Your task to perform on an android device: Is it going to rain tomorrow? Image 0: 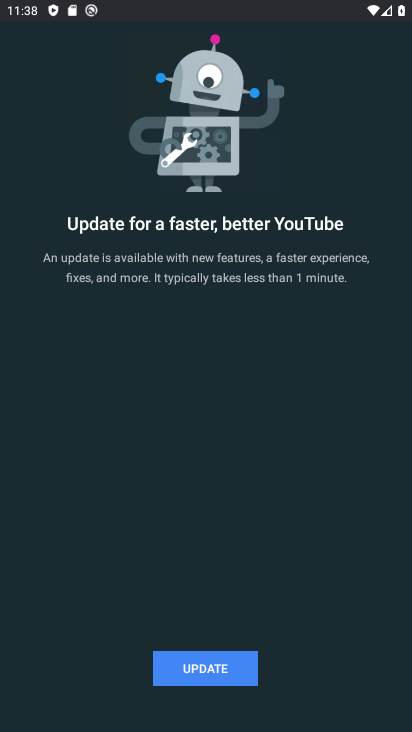
Step 0: press back button
Your task to perform on an android device: Is it going to rain tomorrow? Image 1: 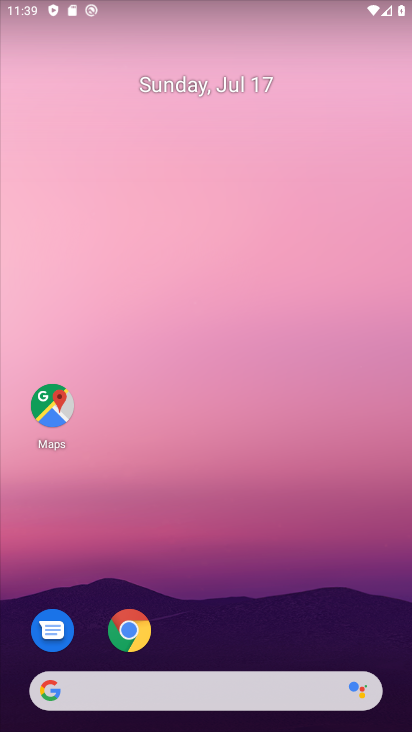
Step 1: drag from (229, 666) to (316, 161)
Your task to perform on an android device: Is it going to rain tomorrow? Image 2: 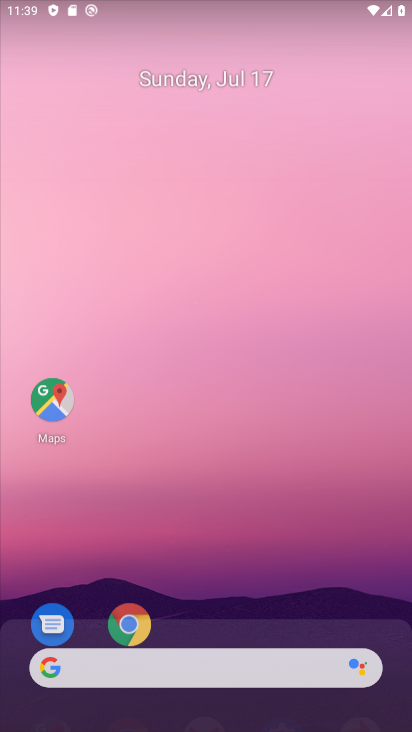
Step 2: drag from (272, 631) to (257, 328)
Your task to perform on an android device: Is it going to rain tomorrow? Image 3: 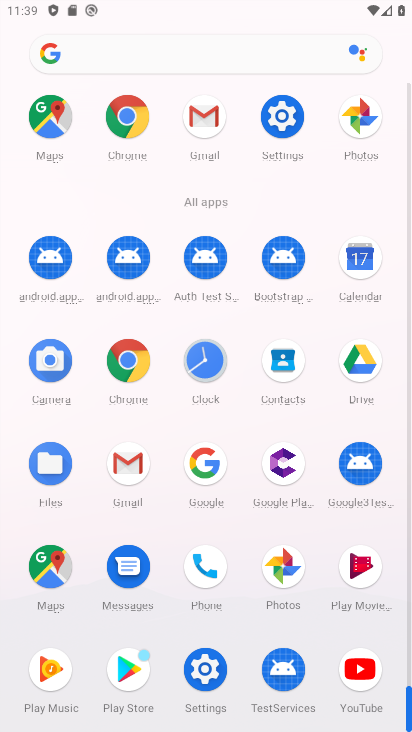
Step 3: click (122, 105)
Your task to perform on an android device: Is it going to rain tomorrow? Image 4: 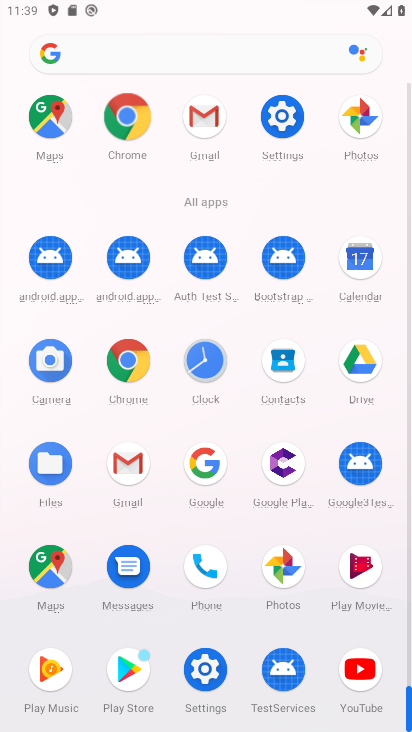
Step 4: click (122, 105)
Your task to perform on an android device: Is it going to rain tomorrow? Image 5: 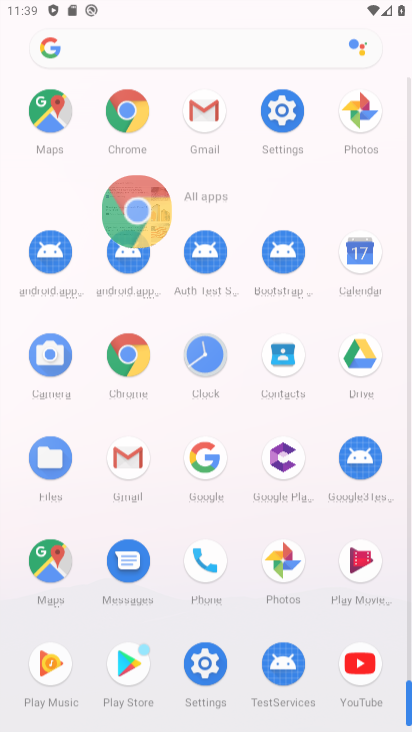
Step 5: click (122, 105)
Your task to perform on an android device: Is it going to rain tomorrow? Image 6: 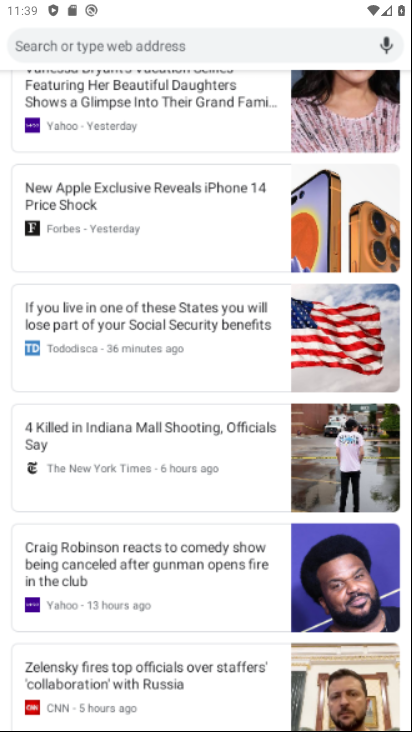
Step 6: click (123, 105)
Your task to perform on an android device: Is it going to rain tomorrow? Image 7: 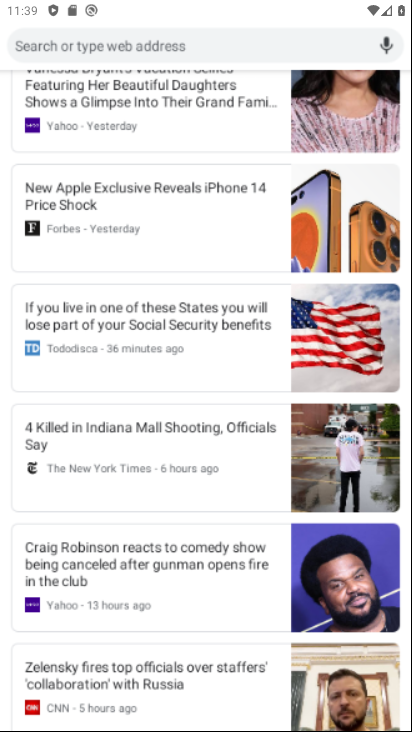
Step 7: click (124, 105)
Your task to perform on an android device: Is it going to rain tomorrow? Image 8: 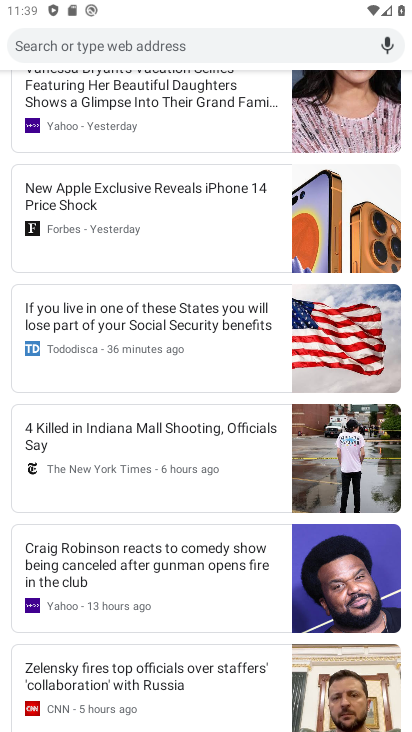
Step 8: click (125, 105)
Your task to perform on an android device: Is it going to rain tomorrow? Image 9: 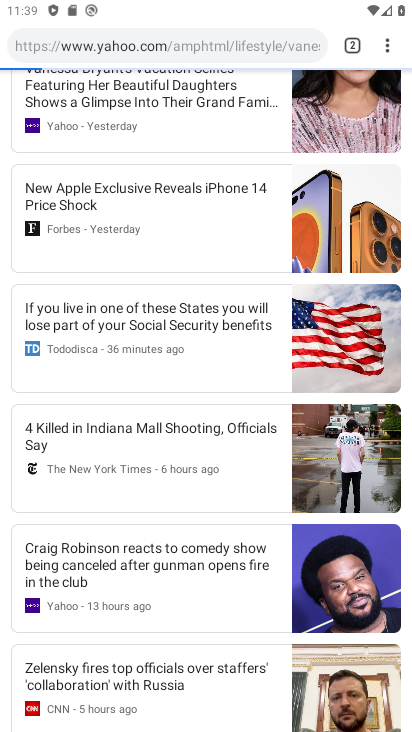
Step 9: click (71, 38)
Your task to perform on an android device: Is it going to rain tomorrow? Image 10: 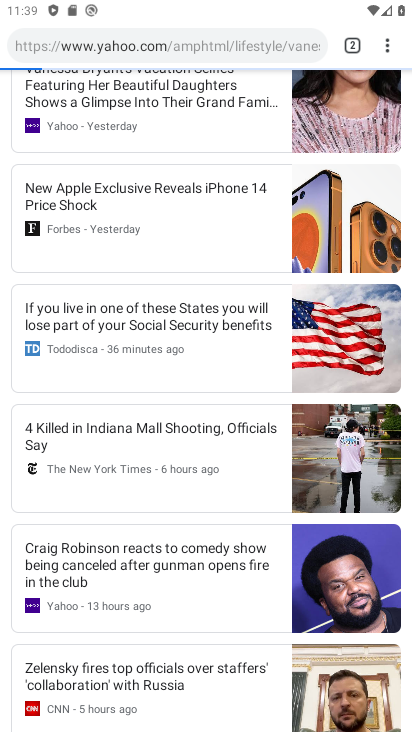
Step 10: click (71, 38)
Your task to perform on an android device: Is it going to rain tomorrow? Image 11: 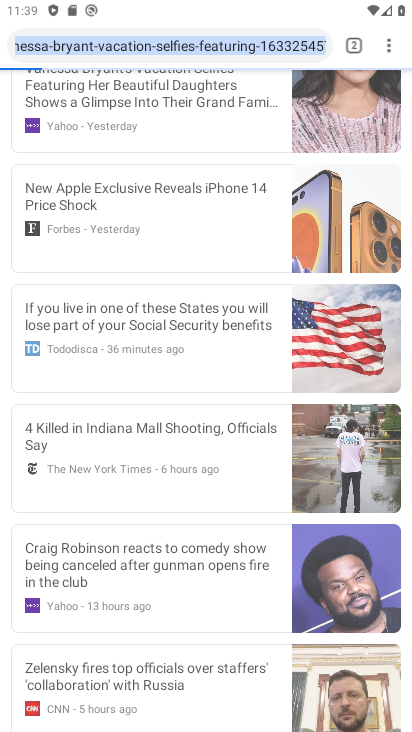
Step 11: click (71, 38)
Your task to perform on an android device: Is it going to rain tomorrow? Image 12: 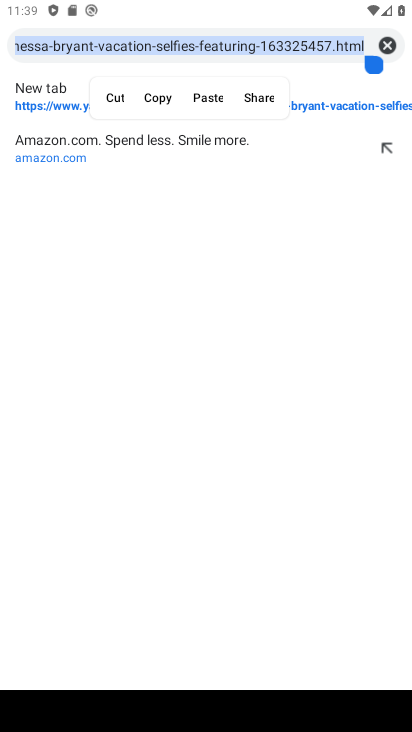
Step 12: click (381, 34)
Your task to perform on an android device: Is it going to rain tomorrow? Image 13: 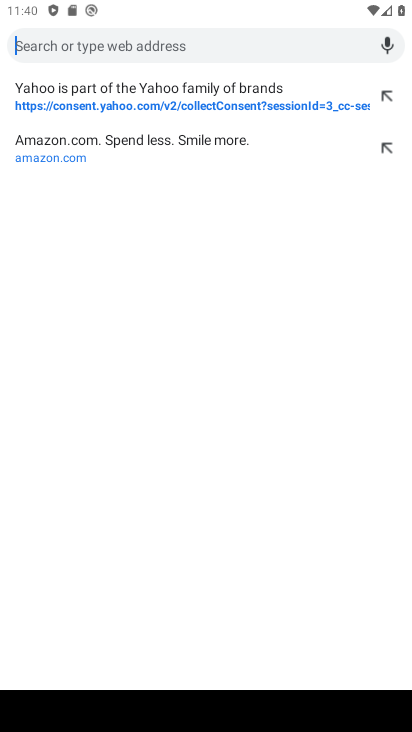
Step 13: click (115, 47)
Your task to perform on an android device: Is it going to rain tomorrow? Image 14: 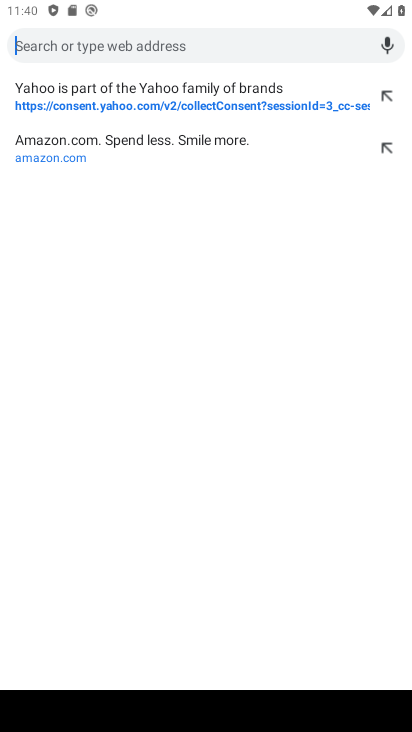
Step 14: type "is it going to rain tomoprrow?"
Your task to perform on an android device: Is it going to rain tomorrow? Image 15: 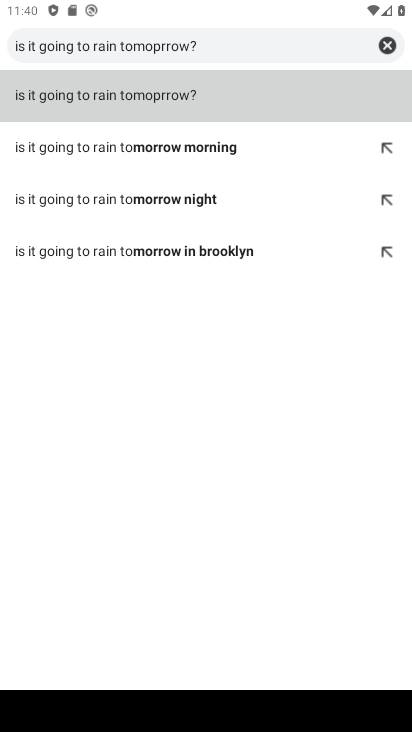
Step 15: click (168, 98)
Your task to perform on an android device: Is it going to rain tomorrow? Image 16: 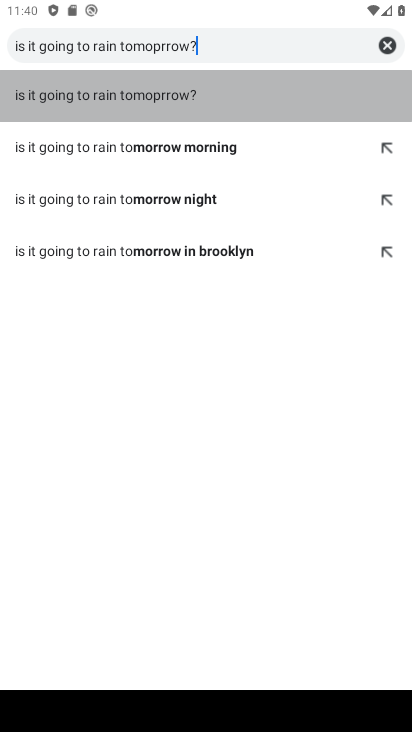
Step 16: click (168, 98)
Your task to perform on an android device: Is it going to rain tomorrow? Image 17: 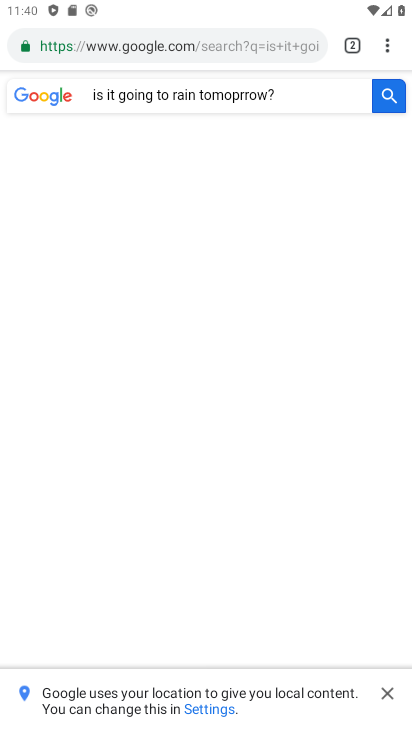
Step 17: task complete